Your task to perform on an android device: Show the shopping cart on ebay.com. Add rayovac triple a to the cart on ebay.com, then select checkout. Image 0: 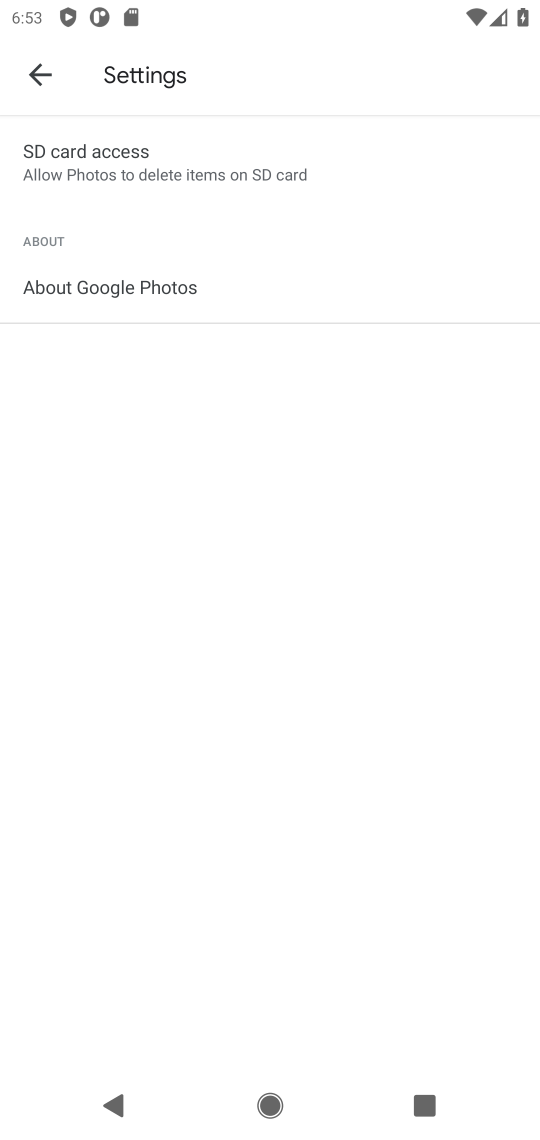
Step 0: press home button
Your task to perform on an android device: Show the shopping cart on ebay.com. Add rayovac triple a to the cart on ebay.com, then select checkout. Image 1: 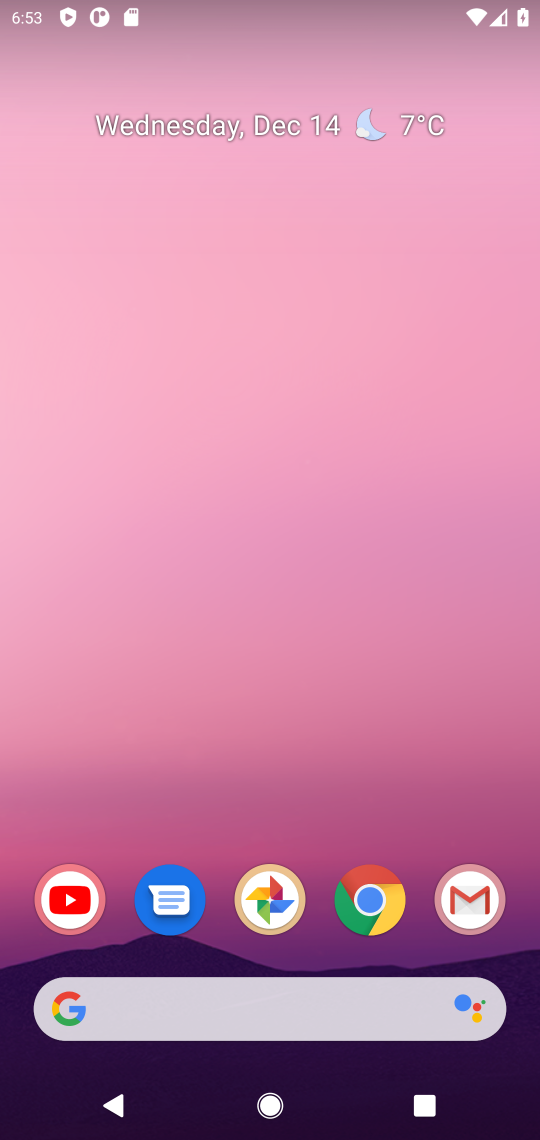
Step 1: click (261, 1009)
Your task to perform on an android device: Show the shopping cart on ebay.com. Add rayovac triple a to the cart on ebay.com, then select checkout. Image 2: 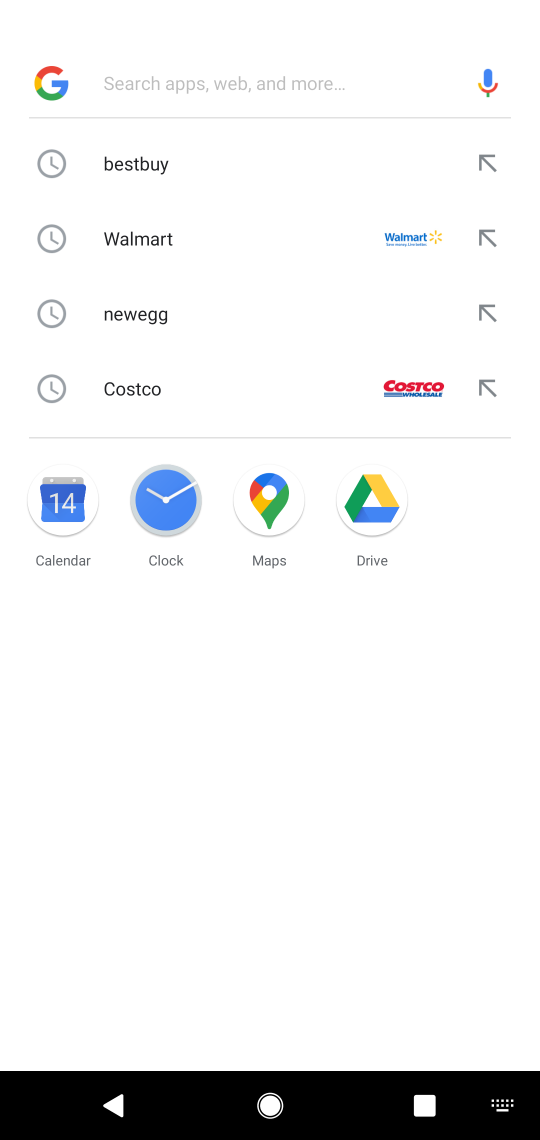
Step 2: type "ebay.com"
Your task to perform on an android device: Show the shopping cart on ebay.com. Add rayovac triple a to the cart on ebay.com, then select checkout. Image 3: 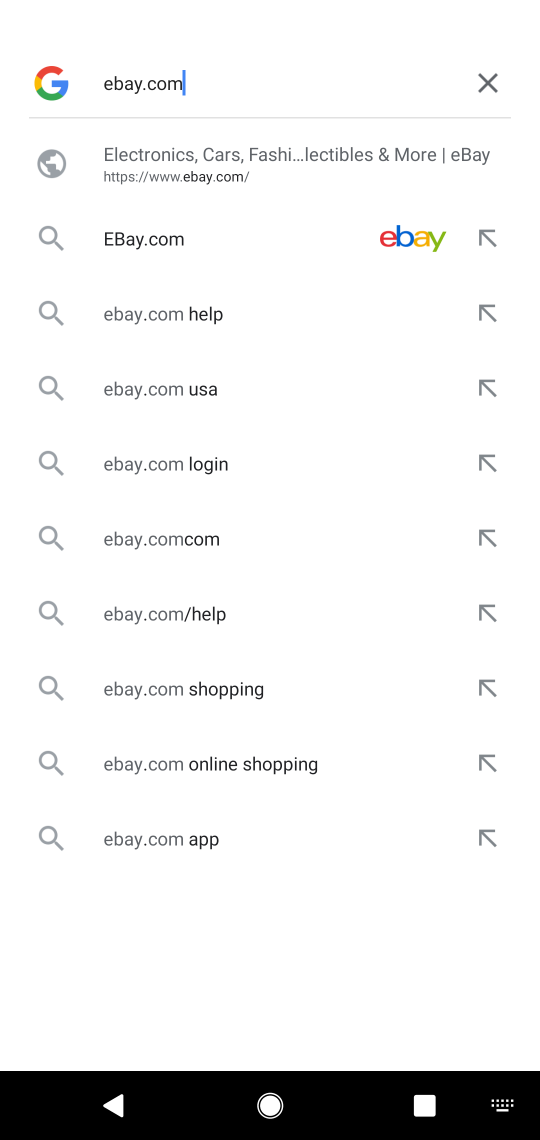
Step 3: click (158, 238)
Your task to perform on an android device: Show the shopping cart on ebay.com. Add rayovac triple a to the cart on ebay.com, then select checkout. Image 4: 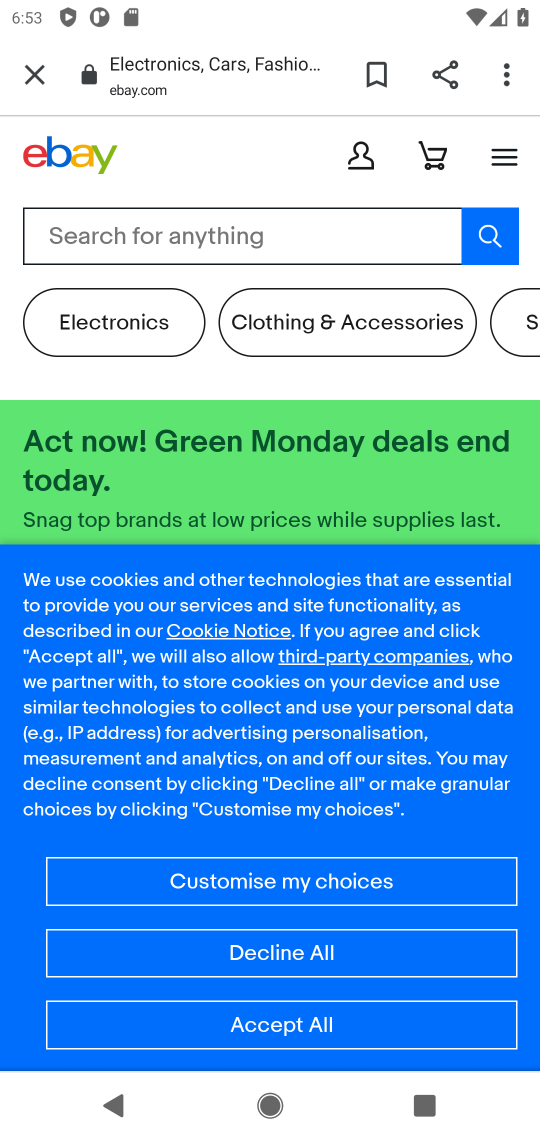
Step 4: click (268, 1014)
Your task to perform on an android device: Show the shopping cart on ebay.com. Add rayovac triple a to the cart on ebay.com, then select checkout. Image 5: 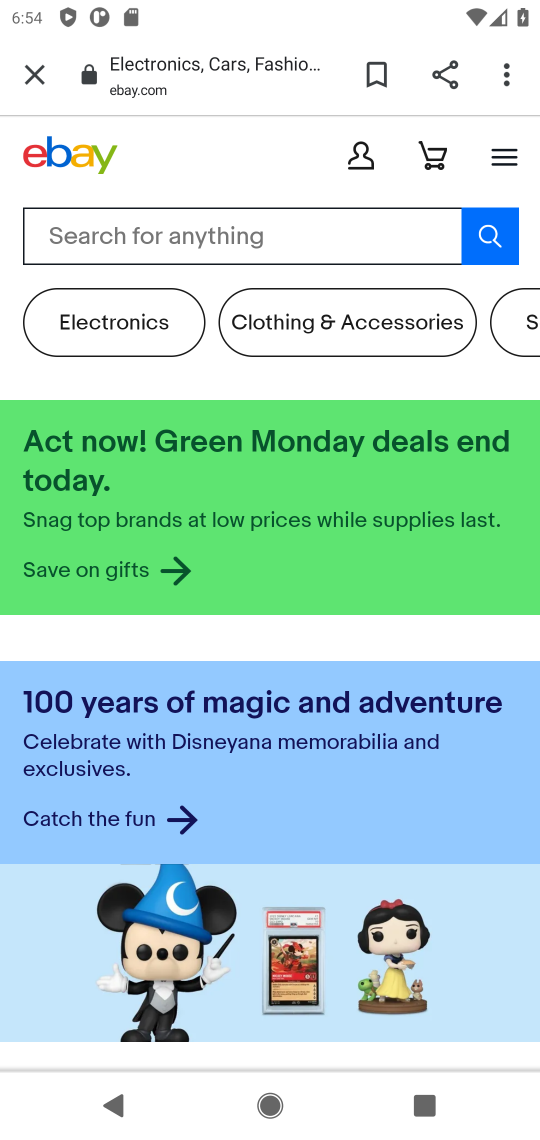
Step 5: click (293, 223)
Your task to perform on an android device: Show the shopping cart on ebay.com. Add rayovac triple a to the cart on ebay.com, then select checkout. Image 6: 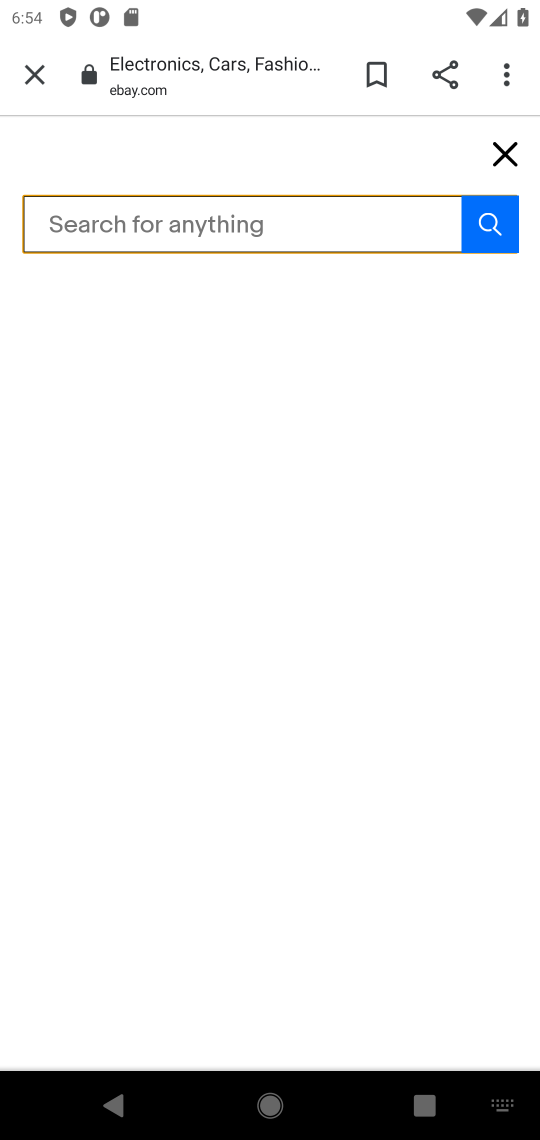
Step 6: type "rayovac triple a"
Your task to perform on an android device: Show the shopping cart on ebay.com. Add rayovac triple a to the cart on ebay.com, then select checkout. Image 7: 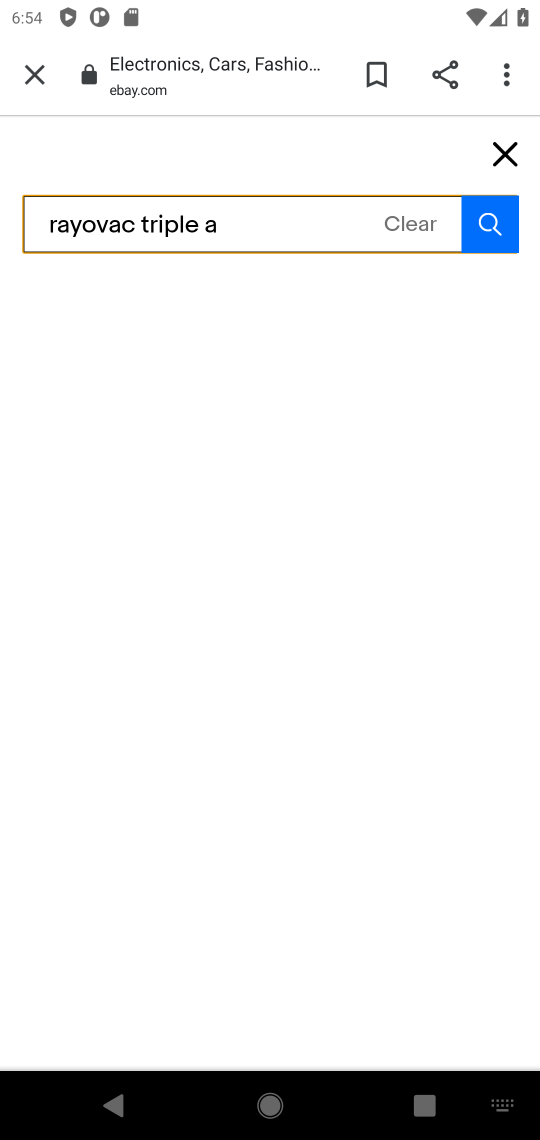
Step 7: click (481, 208)
Your task to perform on an android device: Show the shopping cart on ebay.com. Add rayovac triple a to the cart on ebay.com, then select checkout. Image 8: 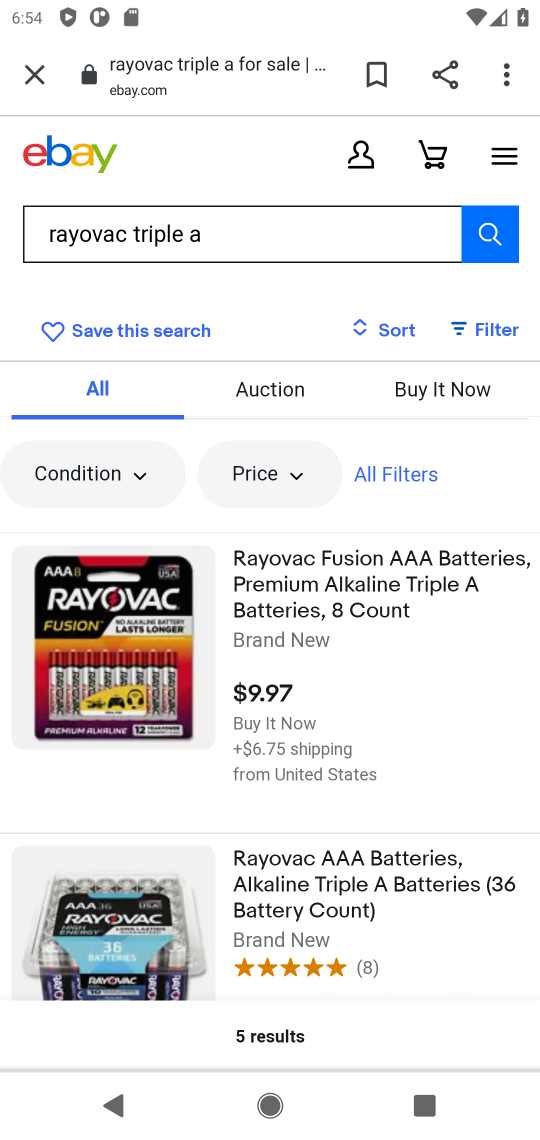
Step 8: click (327, 559)
Your task to perform on an android device: Show the shopping cart on ebay.com. Add rayovac triple a to the cart on ebay.com, then select checkout. Image 9: 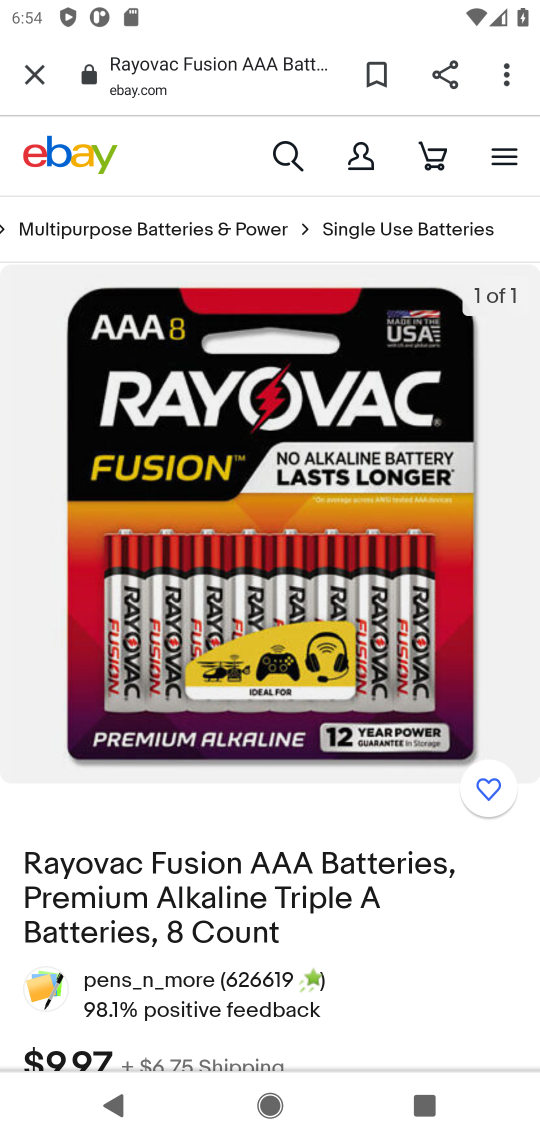
Step 9: drag from (325, 934) to (464, 368)
Your task to perform on an android device: Show the shopping cart on ebay.com. Add rayovac triple a to the cart on ebay.com, then select checkout. Image 10: 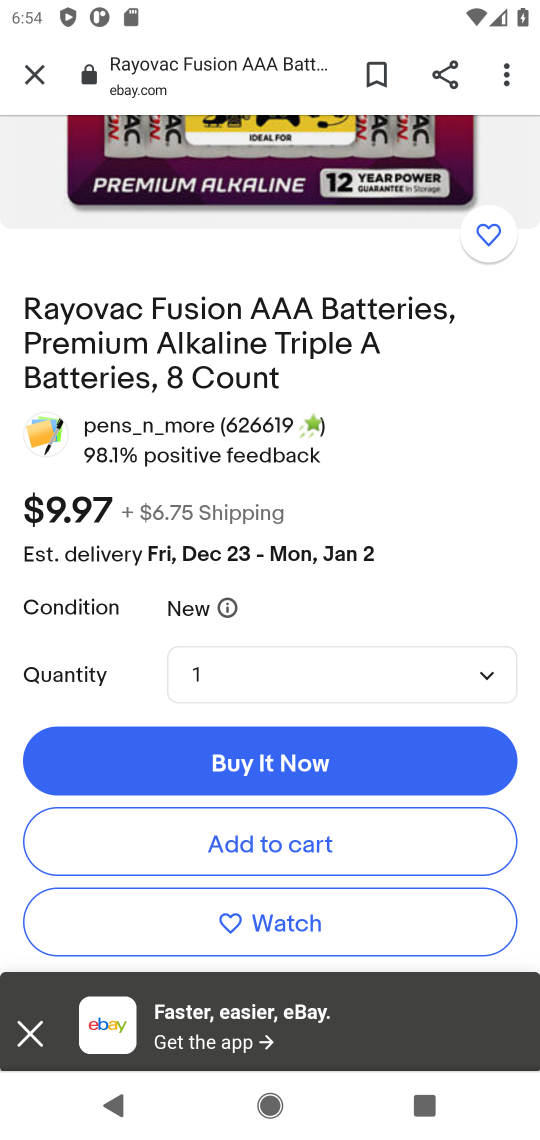
Step 10: click (249, 846)
Your task to perform on an android device: Show the shopping cart on ebay.com. Add rayovac triple a to the cart on ebay.com, then select checkout. Image 11: 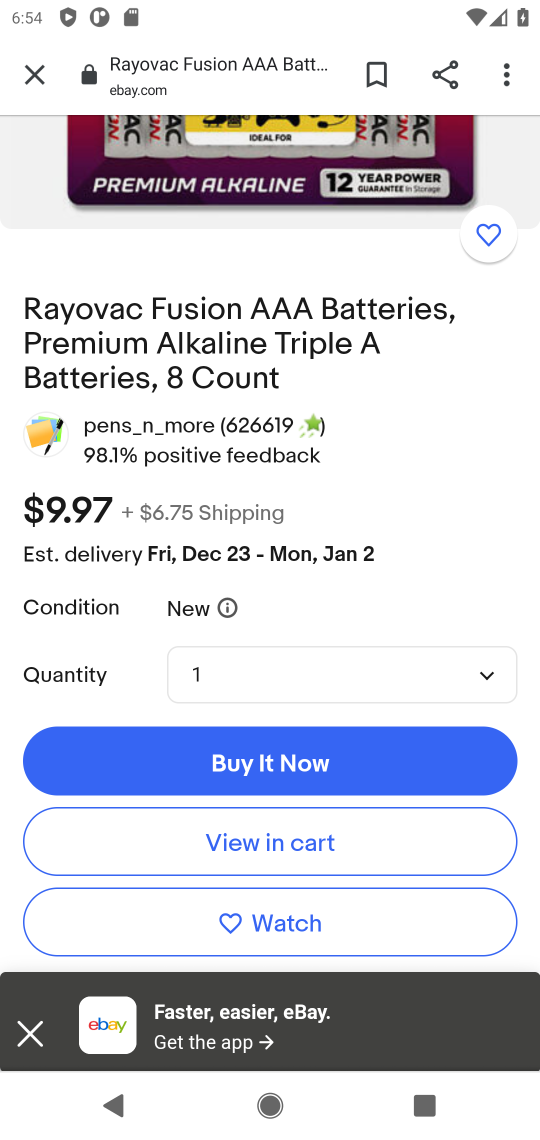
Step 11: click (249, 846)
Your task to perform on an android device: Show the shopping cart on ebay.com. Add rayovac triple a to the cart on ebay.com, then select checkout. Image 12: 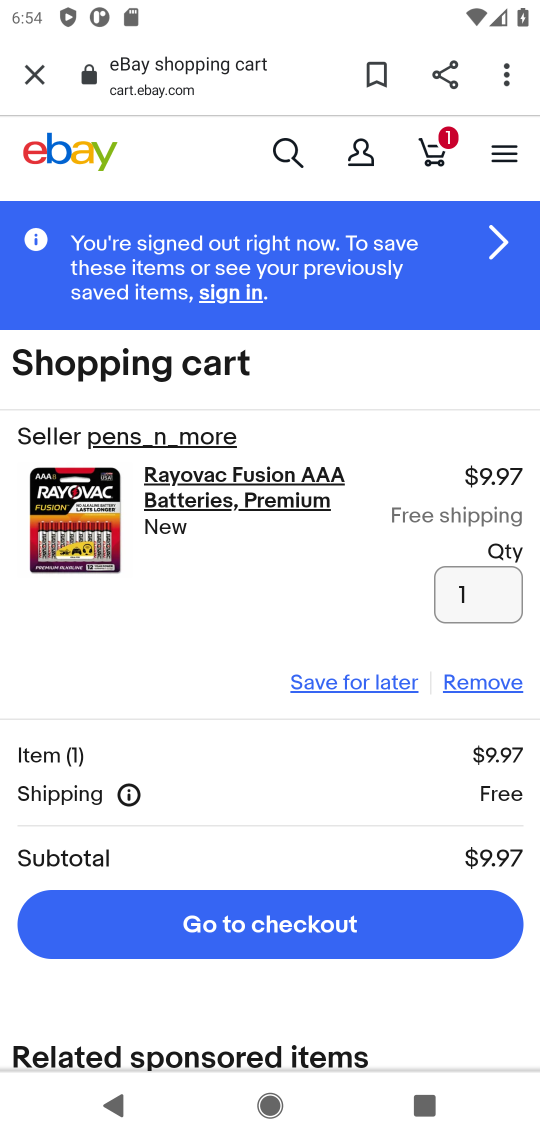
Step 12: click (258, 916)
Your task to perform on an android device: Show the shopping cart on ebay.com. Add rayovac triple a to the cart on ebay.com, then select checkout. Image 13: 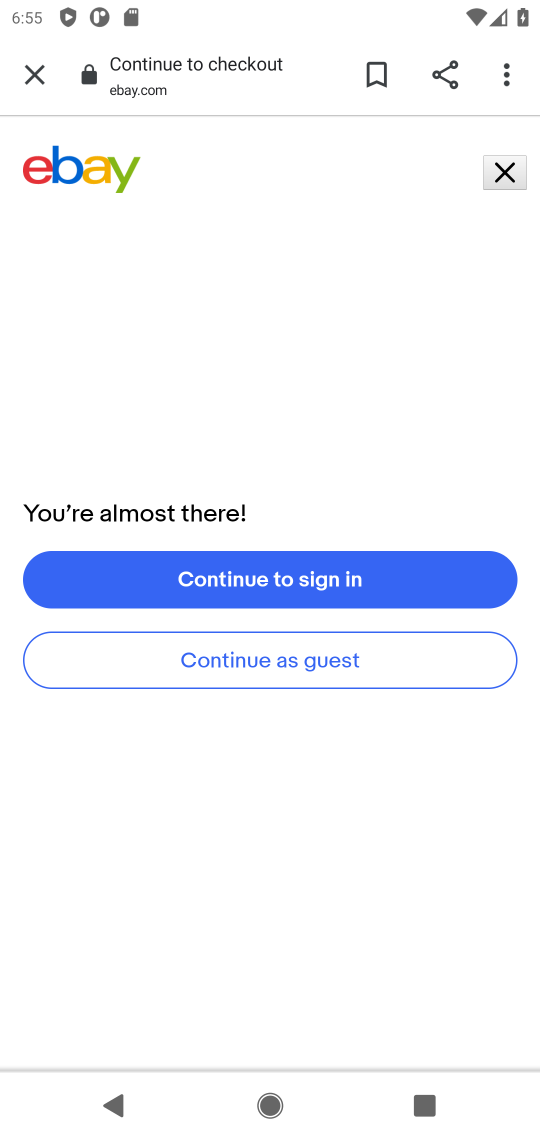
Step 13: task complete